Your task to perform on an android device: Open internet settings Image 0: 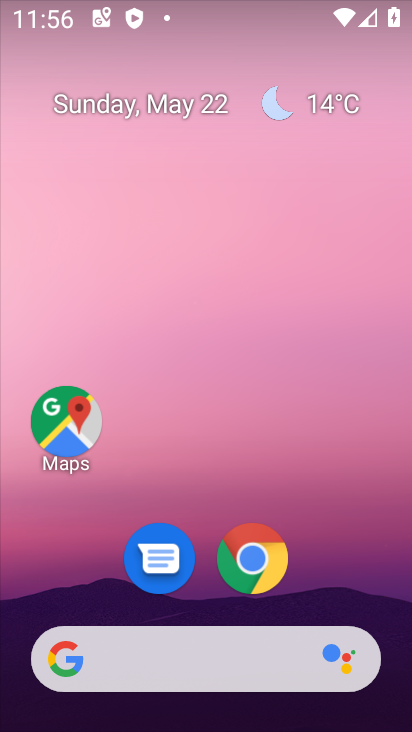
Step 0: drag from (359, 615) to (402, 146)
Your task to perform on an android device: Open internet settings Image 1: 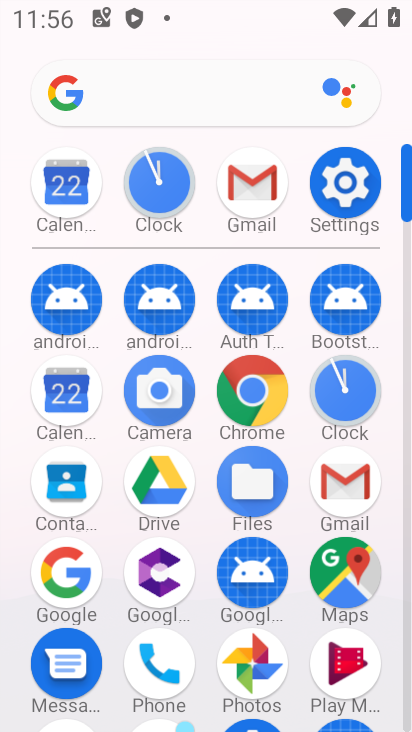
Step 1: click (346, 175)
Your task to perform on an android device: Open internet settings Image 2: 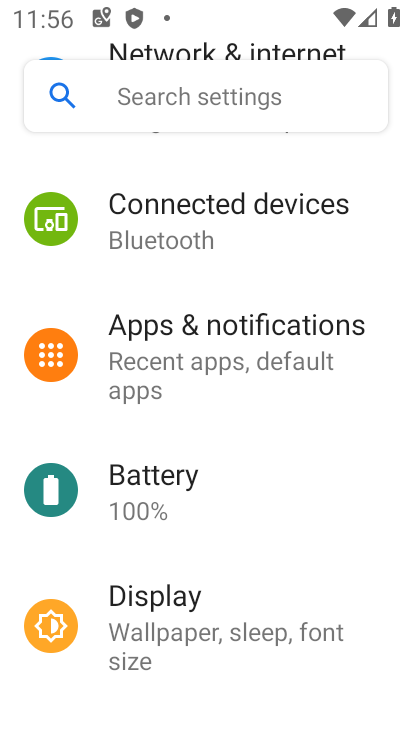
Step 2: drag from (340, 174) to (301, 584)
Your task to perform on an android device: Open internet settings Image 3: 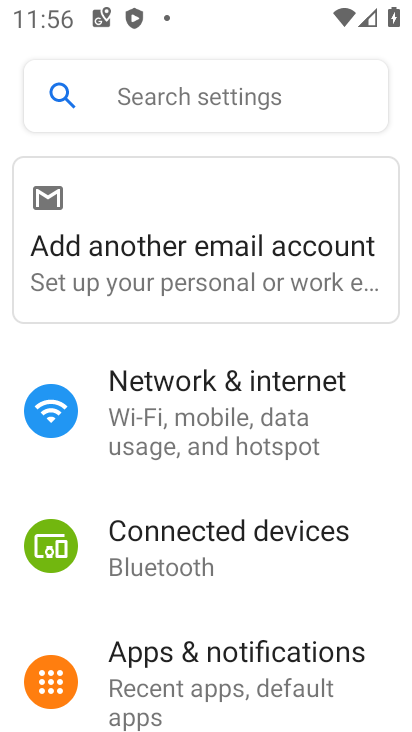
Step 3: click (196, 423)
Your task to perform on an android device: Open internet settings Image 4: 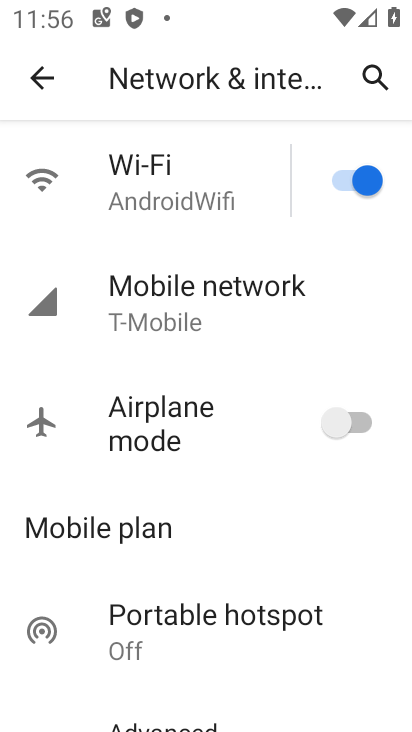
Step 4: task complete